Your task to perform on an android device: toggle improve location accuracy Image 0: 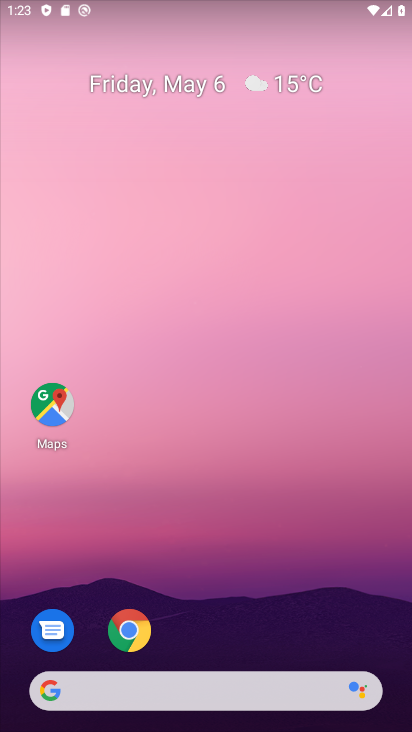
Step 0: drag from (303, 570) to (329, 160)
Your task to perform on an android device: toggle improve location accuracy Image 1: 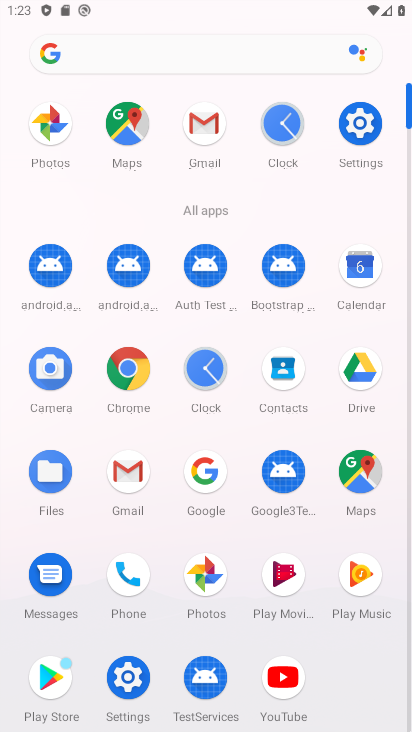
Step 1: drag from (276, 495) to (314, 142)
Your task to perform on an android device: toggle improve location accuracy Image 2: 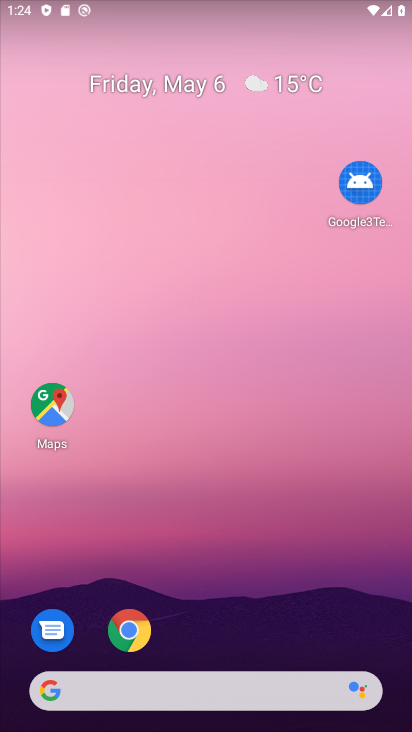
Step 2: drag from (243, 657) to (261, 253)
Your task to perform on an android device: toggle improve location accuracy Image 3: 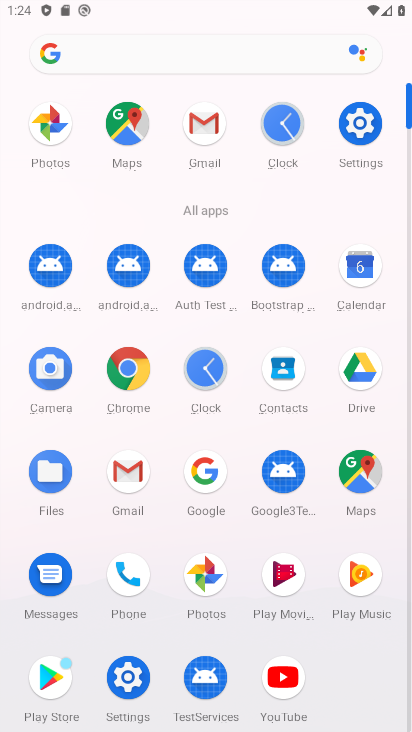
Step 3: click (355, 129)
Your task to perform on an android device: toggle improve location accuracy Image 4: 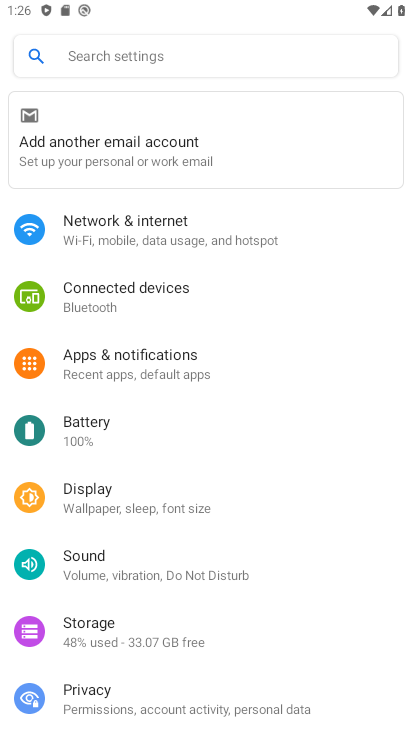
Step 4: drag from (208, 574) to (231, 196)
Your task to perform on an android device: toggle improve location accuracy Image 5: 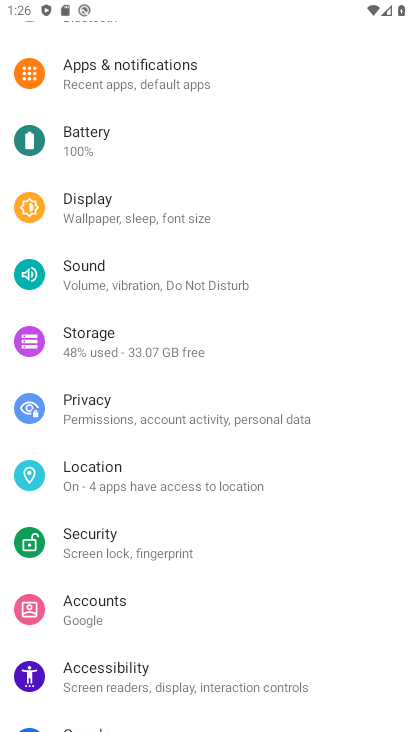
Step 5: click (158, 595)
Your task to perform on an android device: toggle improve location accuracy Image 6: 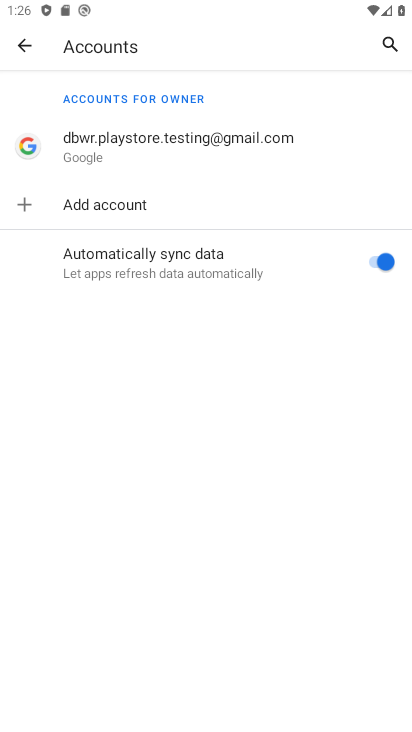
Step 6: click (18, 46)
Your task to perform on an android device: toggle improve location accuracy Image 7: 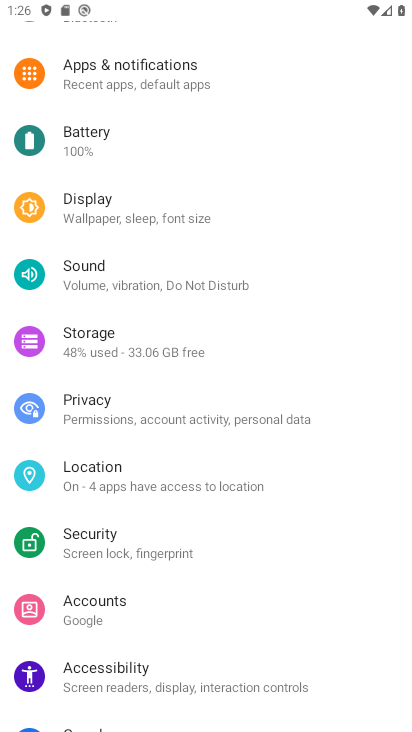
Step 7: click (135, 485)
Your task to perform on an android device: toggle improve location accuracy Image 8: 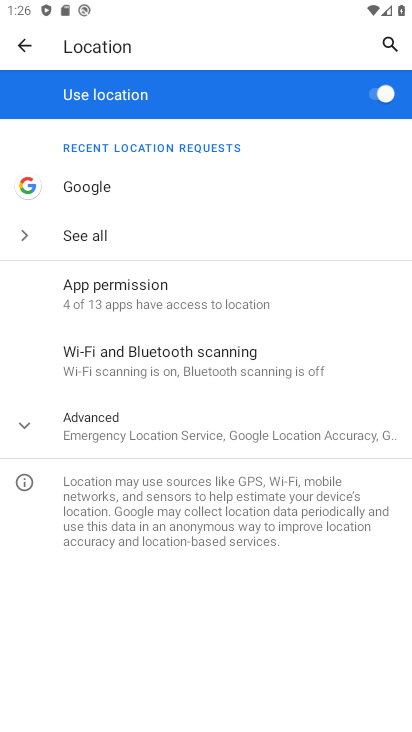
Step 8: click (133, 433)
Your task to perform on an android device: toggle improve location accuracy Image 9: 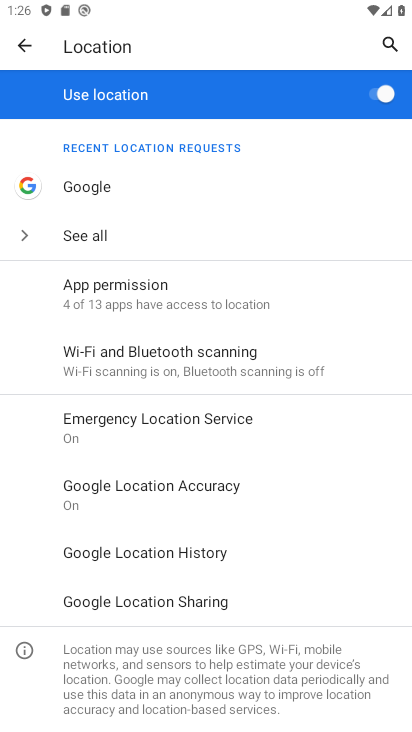
Step 9: click (147, 488)
Your task to perform on an android device: toggle improve location accuracy Image 10: 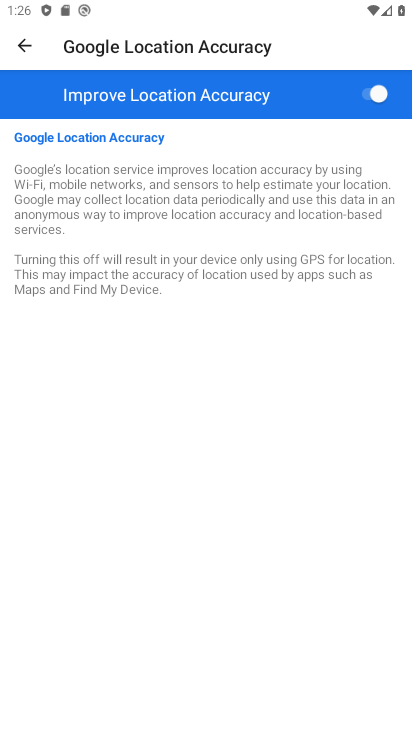
Step 10: click (377, 94)
Your task to perform on an android device: toggle improve location accuracy Image 11: 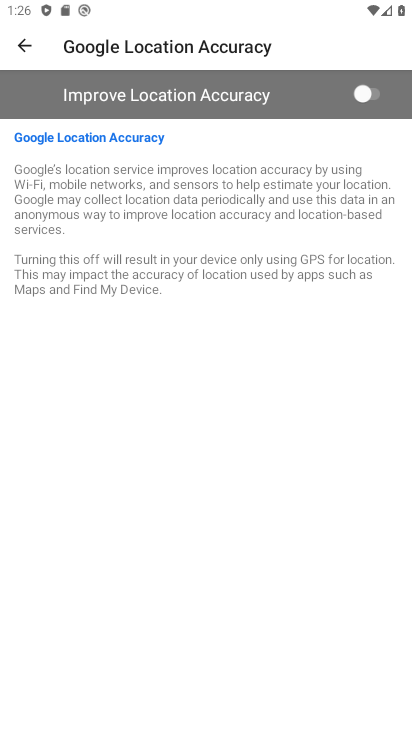
Step 11: task complete